Your task to perform on an android device: turn pop-ups off in chrome Image 0: 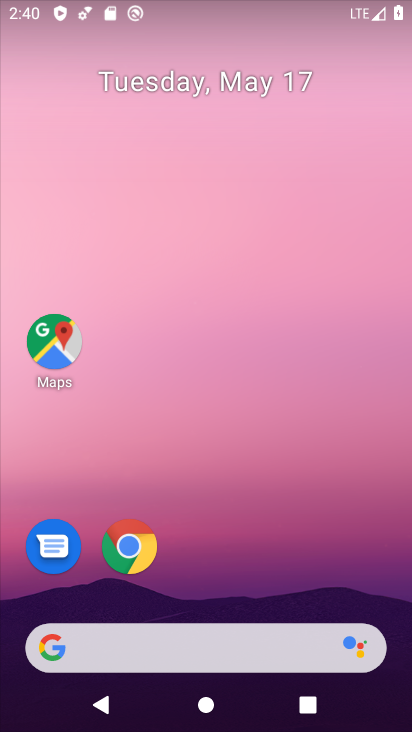
Step 0: drag from (287, 604) to (280, 214)
Your task to perform on an android device: turn pop-ups off in chrome Image 1: 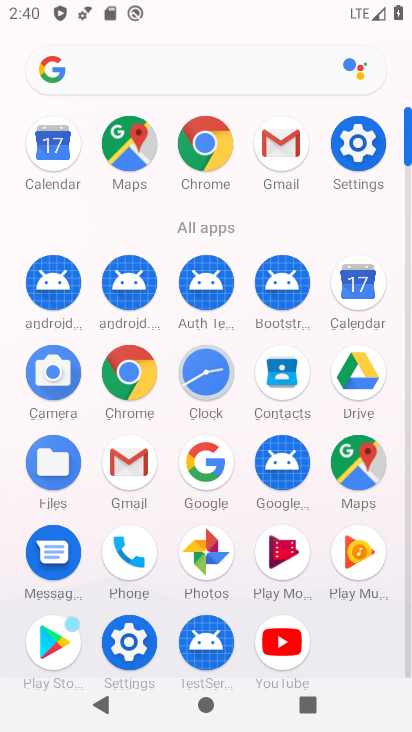
Step 1: click (198, 124)
Your task to perform on an android device: turn pop-ups off in chrome Image 2: 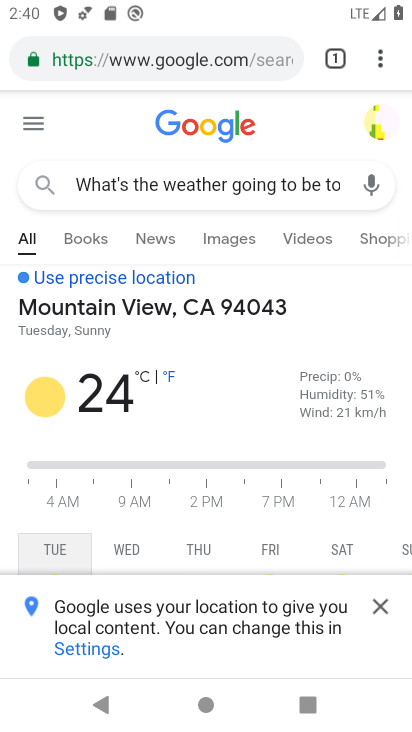
Step 2: drag from (380, 51) to (188, 562)
Your task to perform on an android device: turn pop-ups off in chrome Image 3: 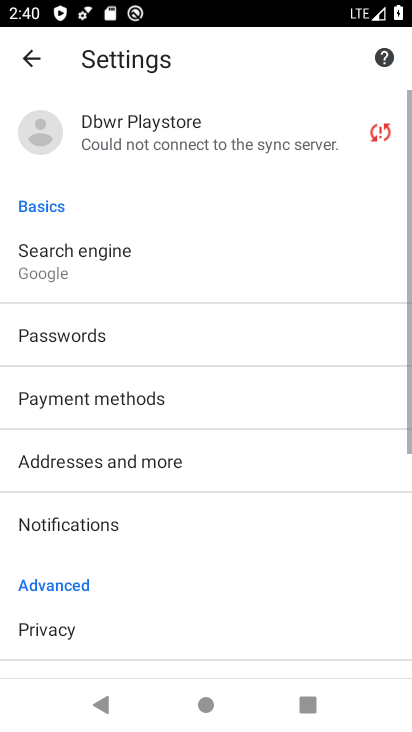
Step 3: drag from (188, 562) to (209, 200)
Your task to perform on an android device: turn pop-ups off in chrome Image 4: 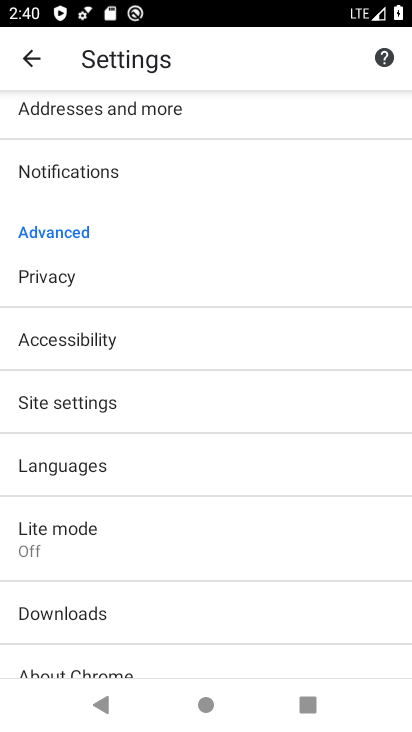
Step 4: click (172, 404)
Your task to perform on an android device: turn pop-ups off in chrome Image 5: 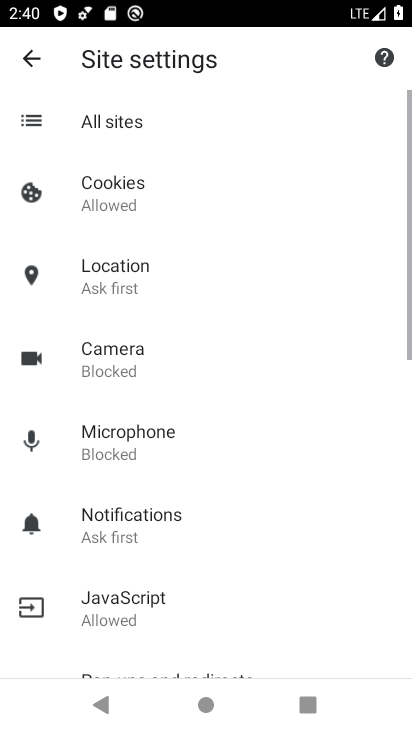
Step 5: drag from (172, 404) to (192, 159)
Your task to perform on an android device: turn pop-ups off in chrome Image 6: 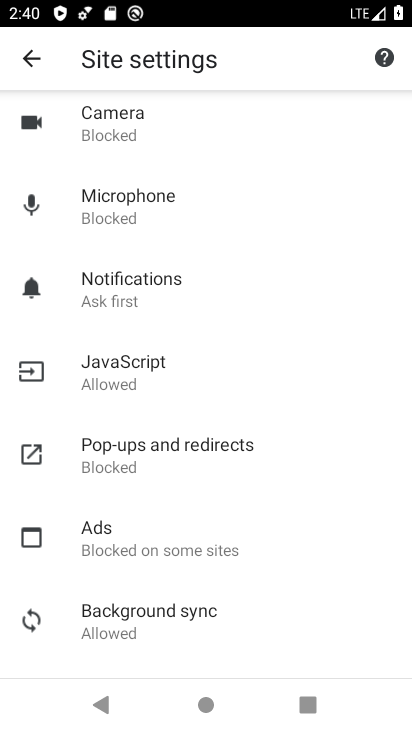
Step 6: click (183, 431)
Your task to perform on an android device: turn pop-ups off in chrome Image 7: 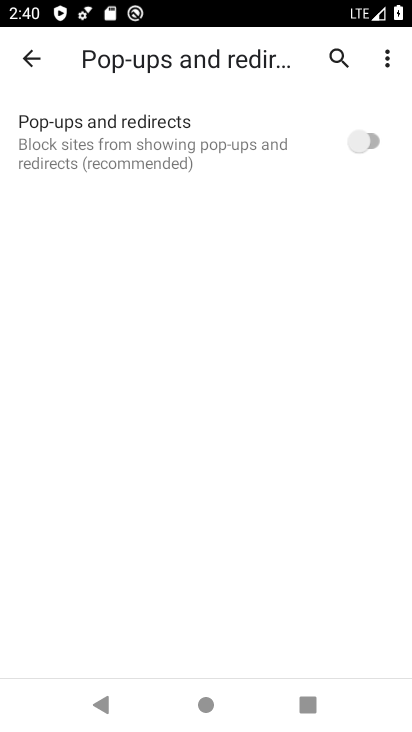
Step 7: task complete